Your task to perform on an android device: Go to wifi settings Image 0: 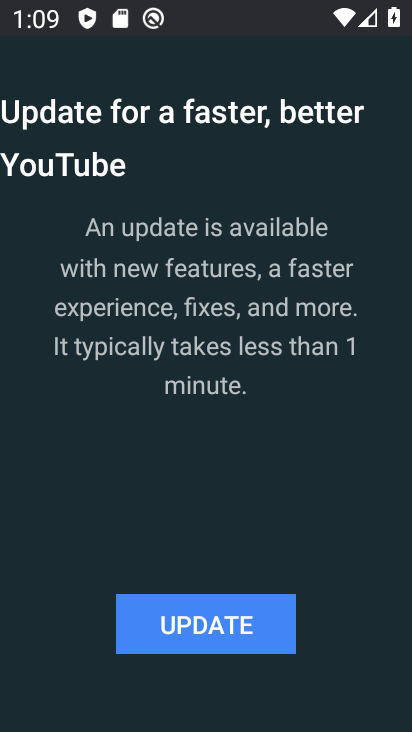
Step 0: press home button
Your task to perform on an android device: Go to wifi settings Image 1: 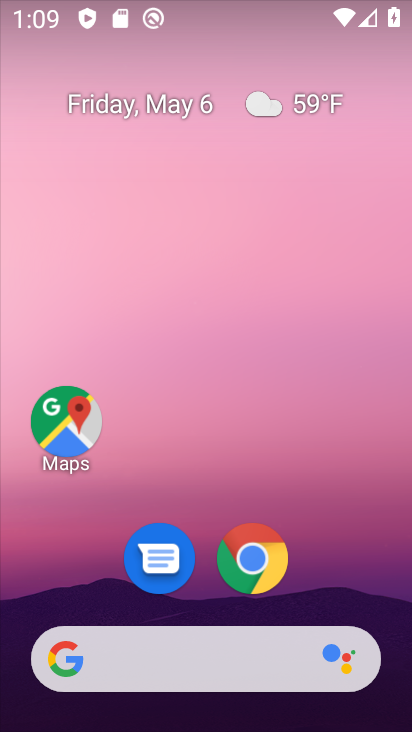
Step 1: drag from (204, 702) to (201, 177)
Your task to perform on an android device: Go to wifi settings Image 2: 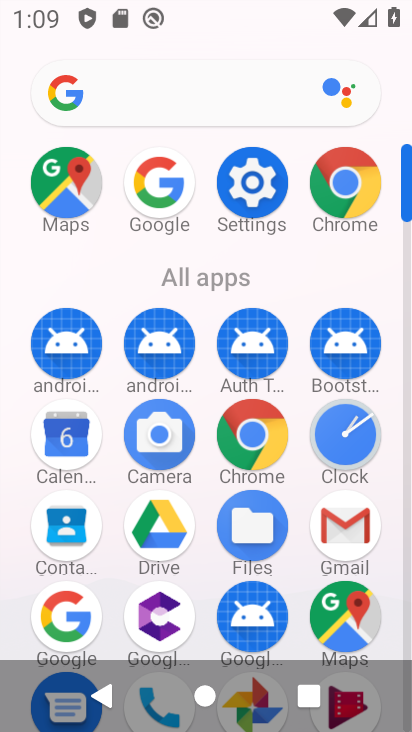
Step 2: click (241, 181)
Your task to perform on an android device: Go to wifi settings Image 3: 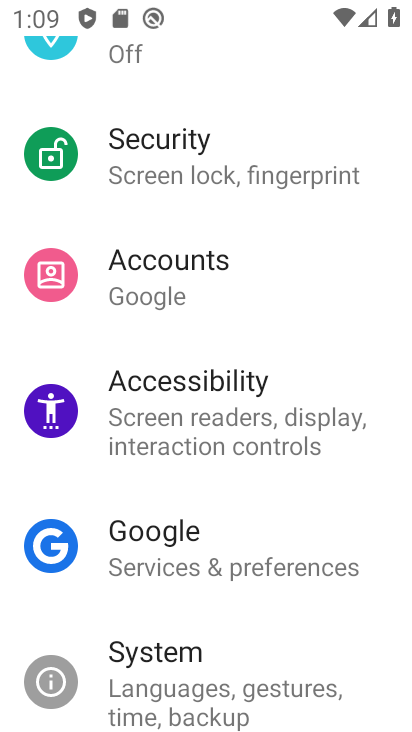
Step 3: drag from (212, 128) to (183, 564)
Your task to perform on an android device: Go to wifi settings Image 4: 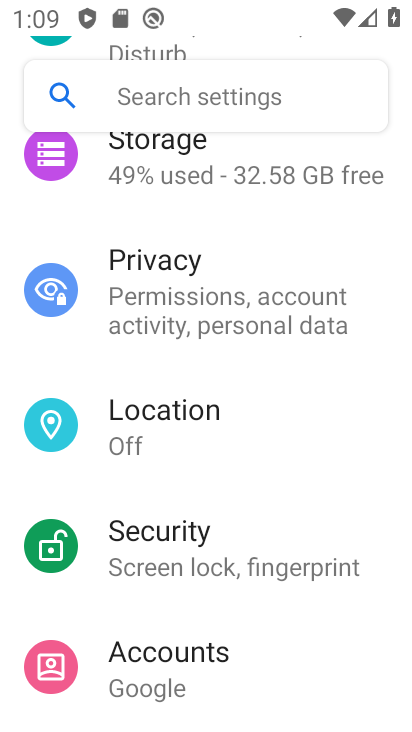
Step 4: drag from (228, 145) to (209, 565)
Your task to perform on an android device: Go to wifi settings Image 5: 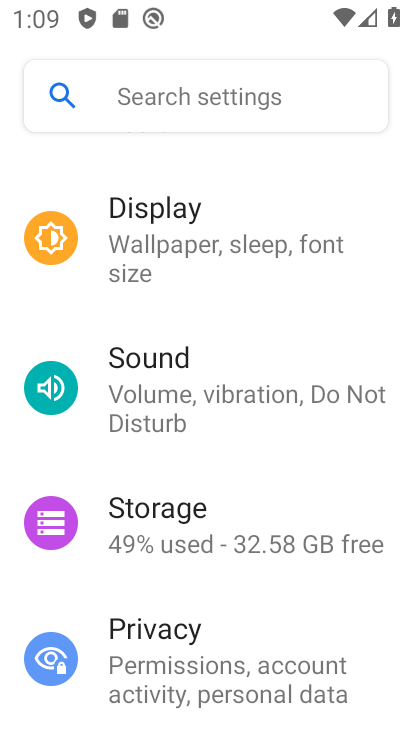
Step 5: drag from (221, 175) to (215, 590)
Your task to perform on an android device: Go to wifi settings Image 6: 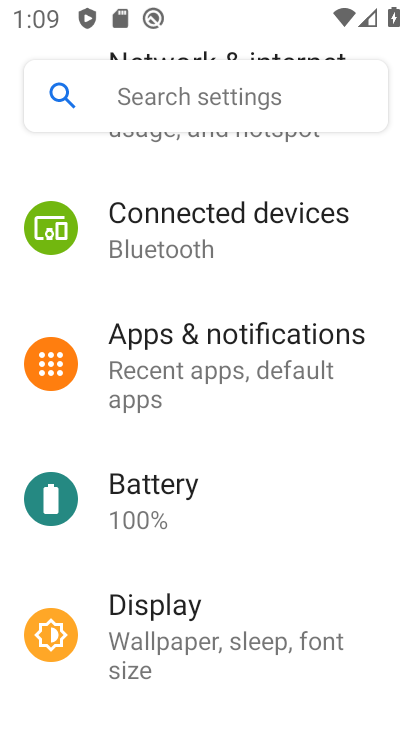
Step 6: drag from (238, 169) to (242, 515)
Your task to perform on an android device: Go to wifi settings Image 7: 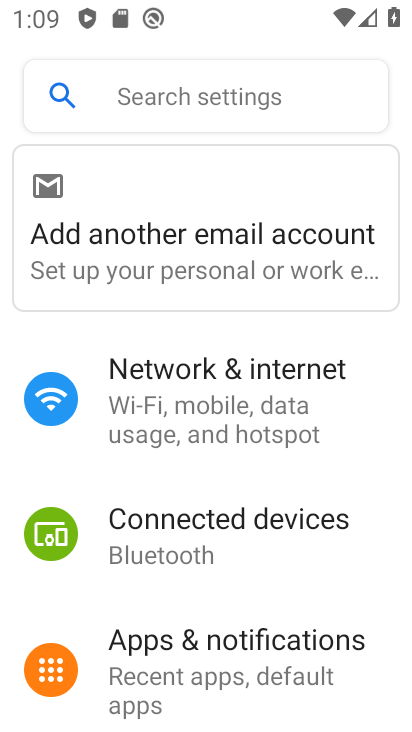
Step 7: click (195, 416)
Your task to perform on an android device: Go to wifi settings Image 8: 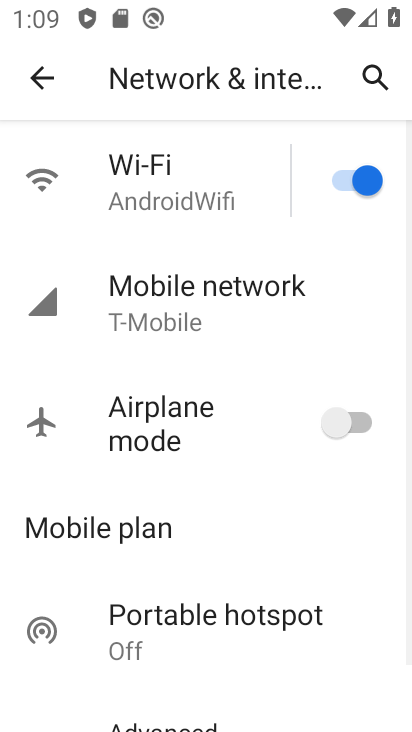
Step 8: click (140, 165)
Your task to perform on an android device: Go to wifi settings Image 9: 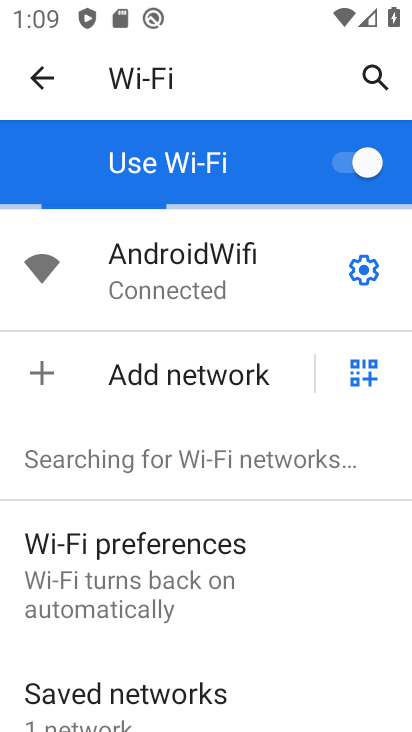
Step 9: task complete